Your task to perform on an android device: Do I have any events this weekend? Image 0: 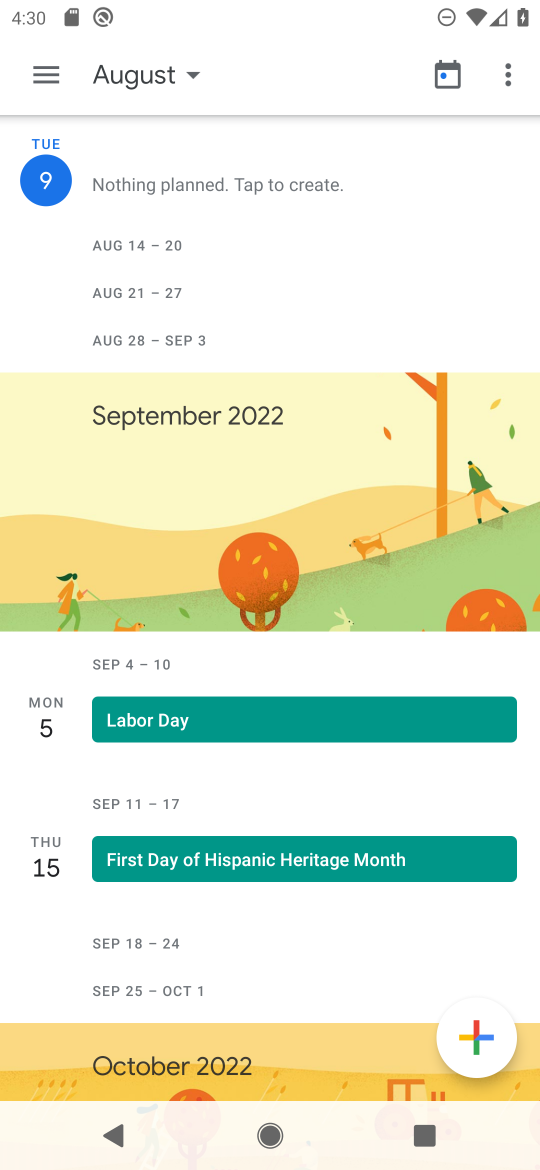
Step 0: press back button
Your task to perform on an android device: Do I have any events this weekend? Image 1: 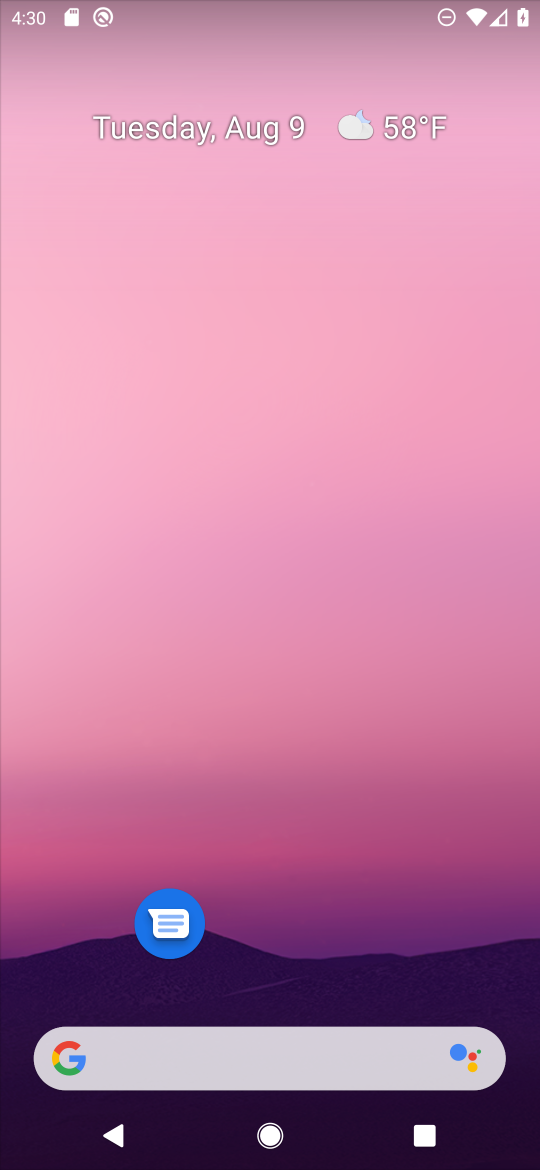
Step 1: drag from (283, 916) to (317, 250)
Your task to perform on an android device: Do I have any events this weekend? Image 2: 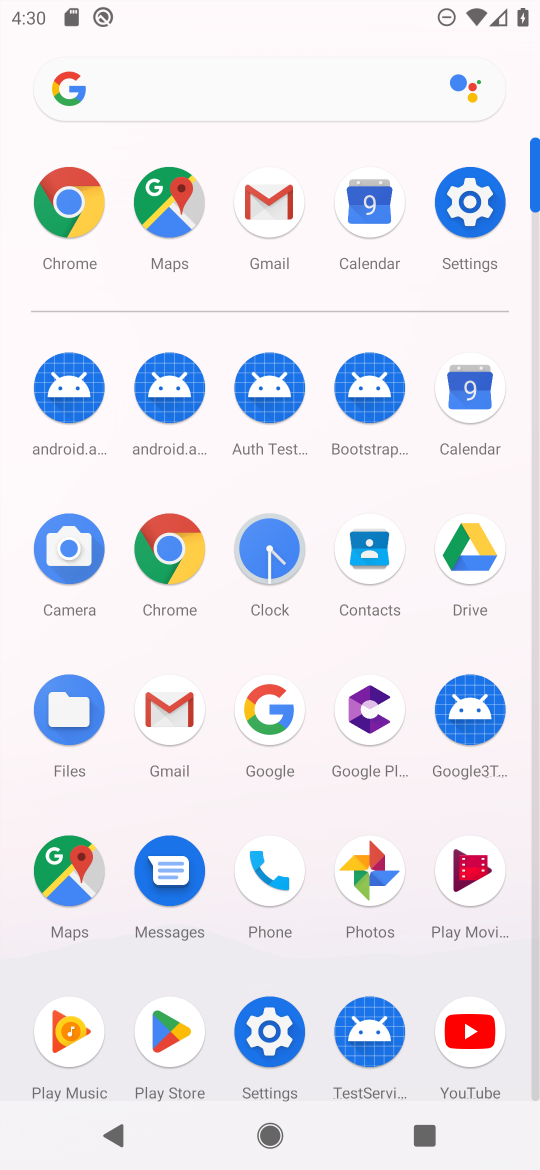
Step 2: click (384, 198)
Your task to perform on an android device: Do I have any events this weekend? Image 3: 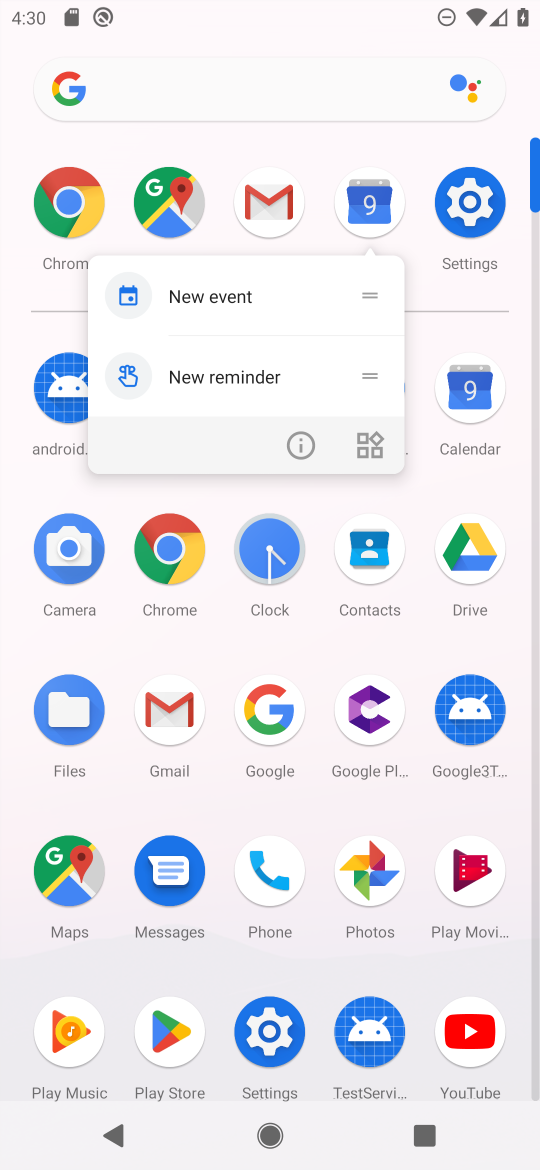
Step 3: click (374, 197)
Your task to perform on an android device: Do I have any events this weekend? Image 4: 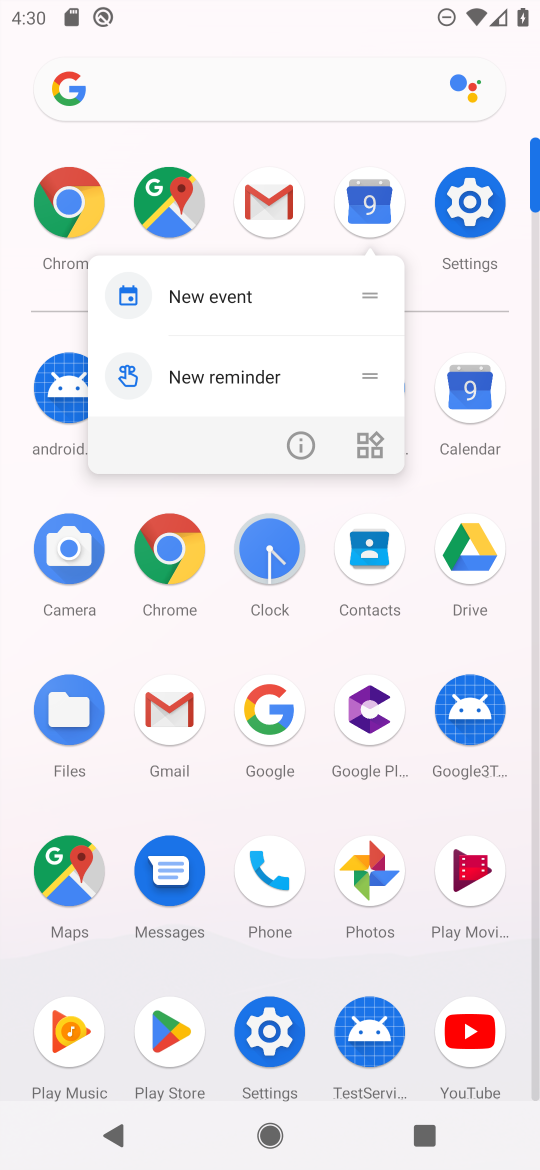
Step 4: click (373, 211)
Your task to perform on an android device: Do I have any events this weekend? Image 5: 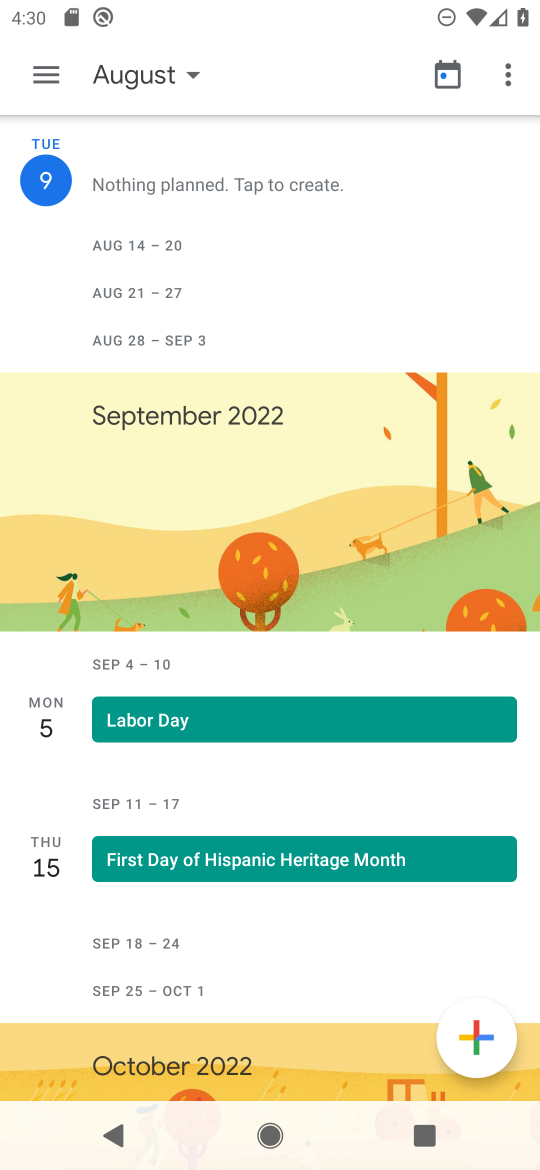
Step 5: click (193, 77)
Your task to perform on an android device: Do I have any events this weekend? Image 6: 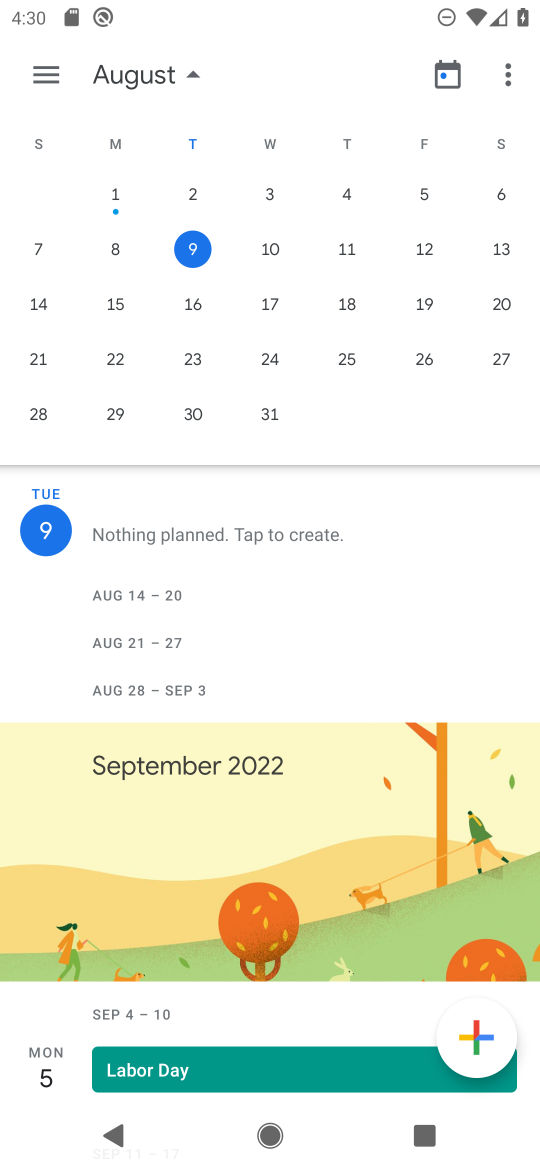
Step 6: click (502, 241)
Your task to perform on an android device: Do I have any events this weekend? Image 7: 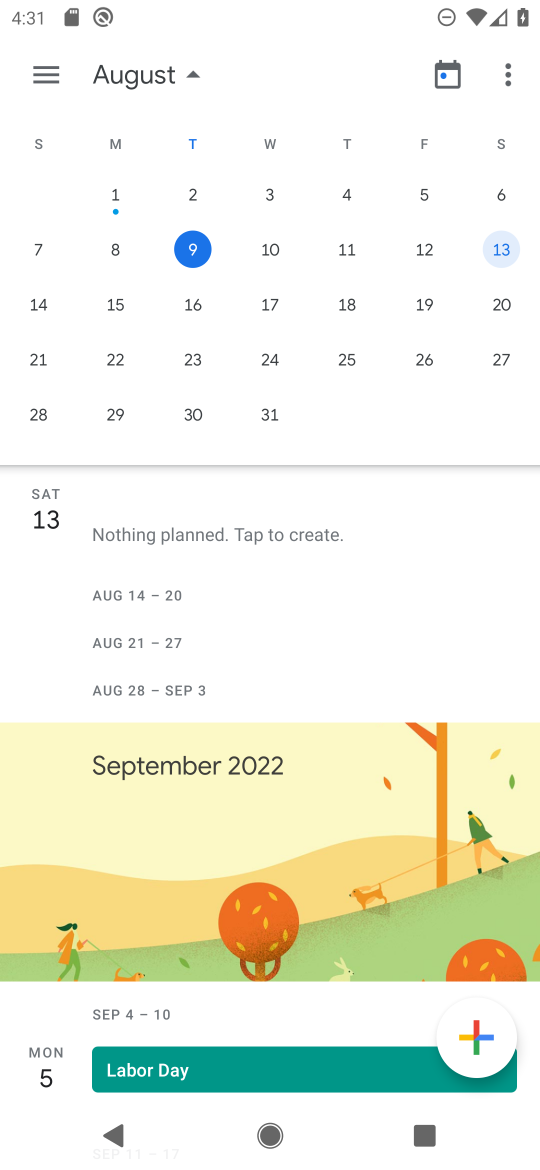
Step 7: task complete